Your task to perform on an android device: Open the web browser Image 0: 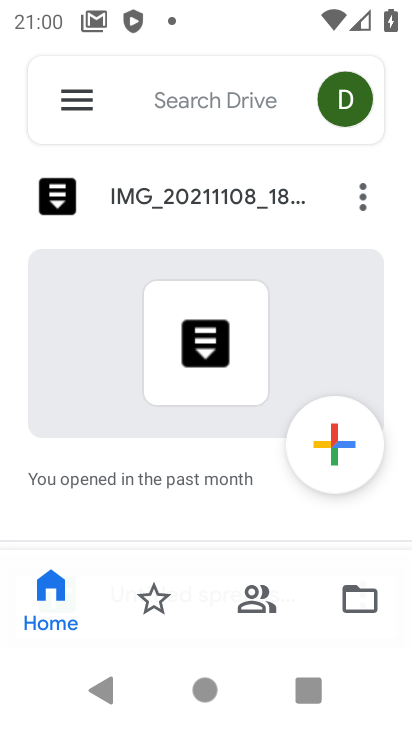
Step 0: press home button
Your task to perform on an android device: Open the web browser Image 1: 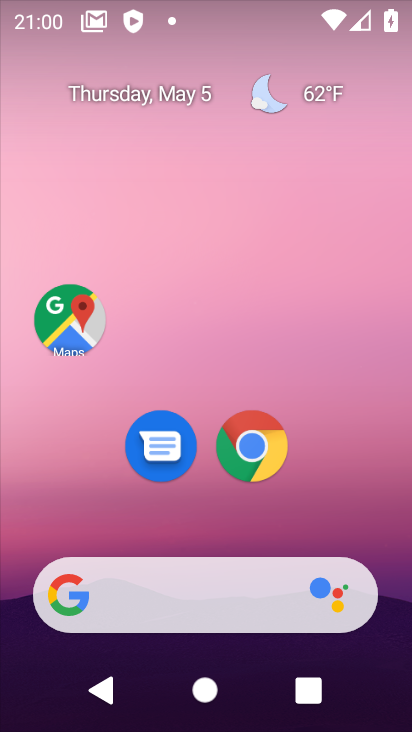
Step 1: drag from (258, 634) to (157, 283)
Your task to perform on an android device: Open the web browser Image 2: 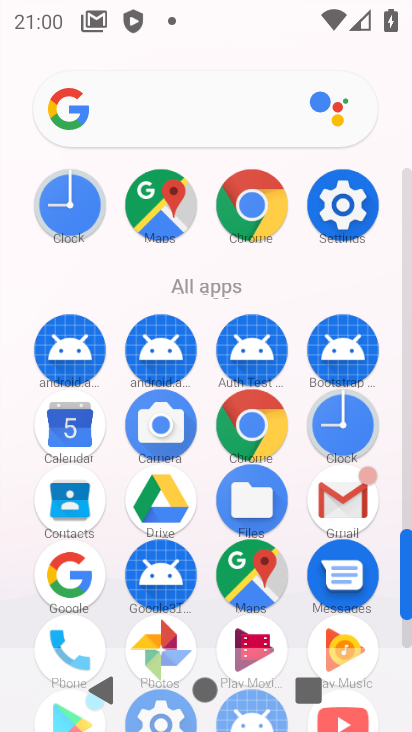
Step 2: click (248, 227)
Your task to perform on an android device: Open the web browser Image 3: 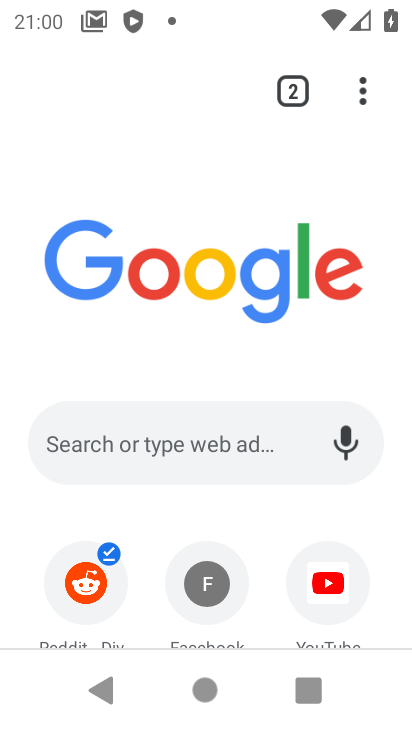
Step 3: click (170, 434)
Your task to perform on an android device: Open the web browser Image 4: 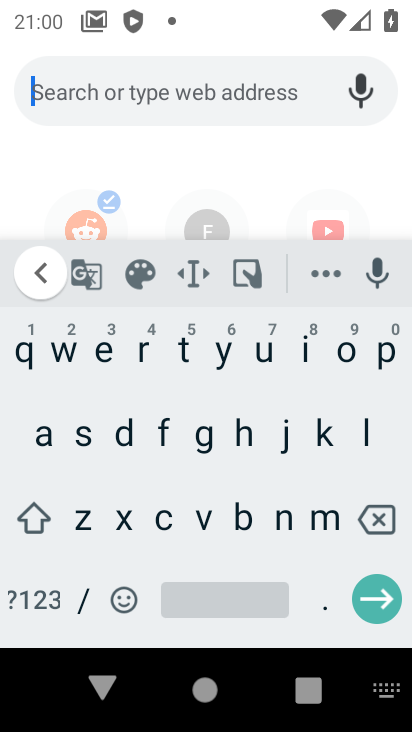
Step 4: task complete